Your task to perform on an android device: search for starred emails in the gmail app Image 0: 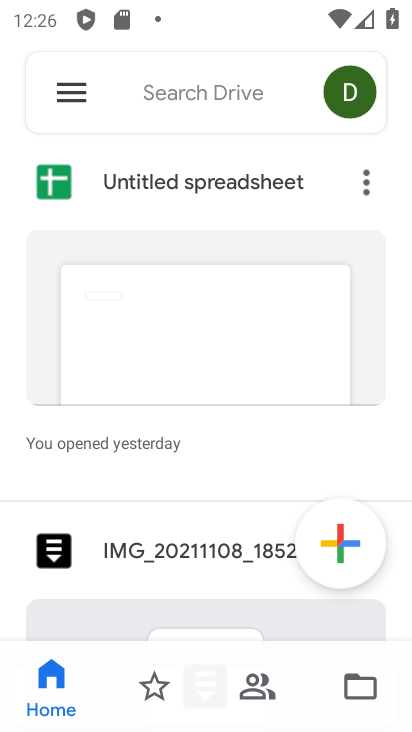
Step 0: press home button
Your task to perform on an android device: search for starred emails in the gmail app Image 1: 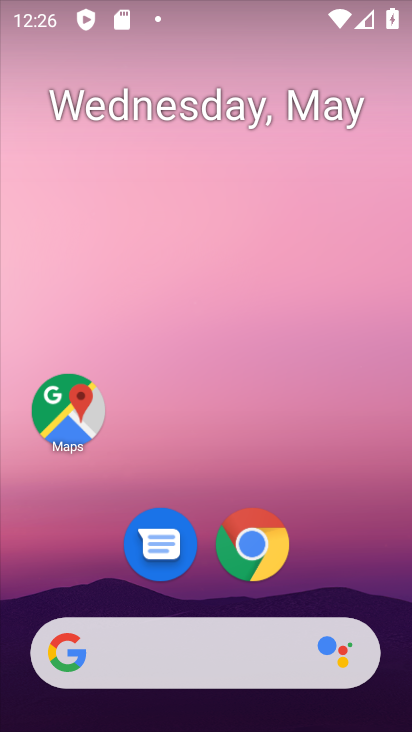
Step 1: drag from (334, 566) to (292, 196)
Your task to perform on an android device: search for starred emails in the gmail app Image 2: 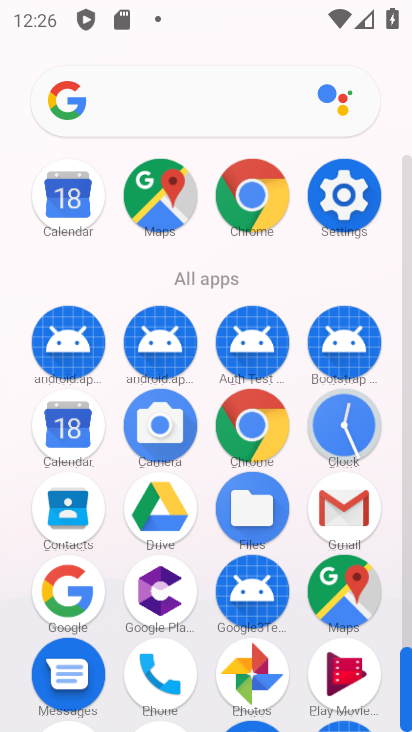
Step 2: click (331, 506)
Your task to perform on an android device: search for starred emails in the gmail app Image 3: 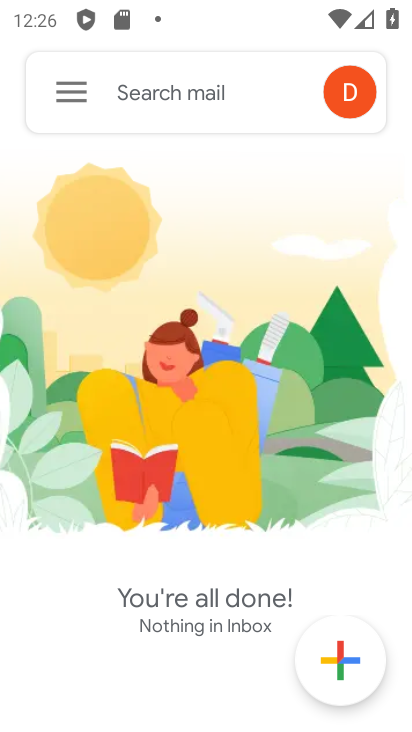
Step 3: click (62, 90)
Your task to perform on an android device: search for starred emails in the gmail app Image 4: 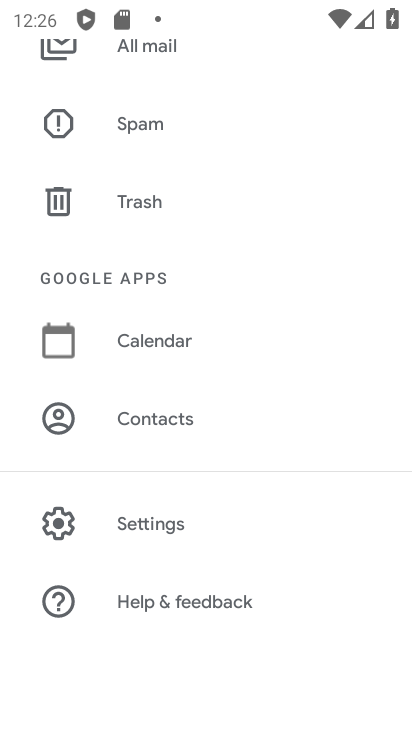
Step 4: click (270, 599)
Your task to perform on an android device: search for starred emails in the gmail app Image 5: 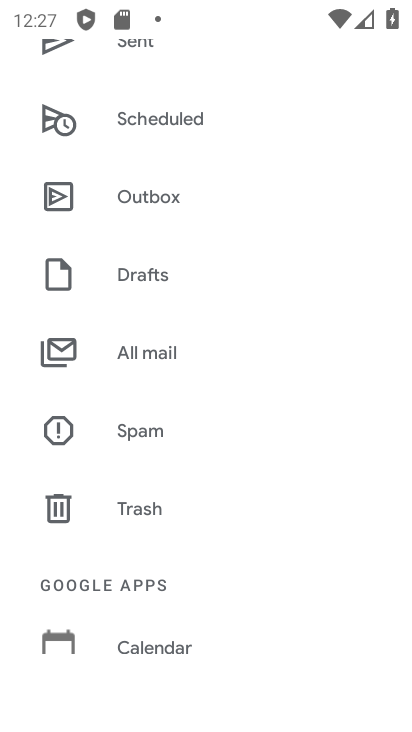
Step 5: drag from (165, 204) to (158, 511)
Your task to perform on an android device: search for starred emails in the gmail app Image 6: 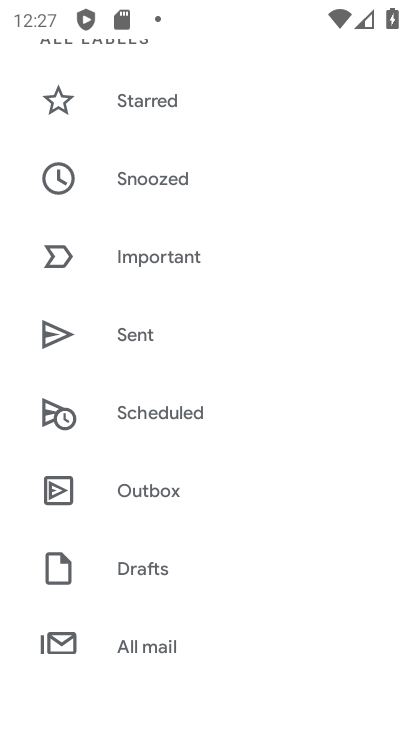
Step 6: click (146, 113)
Your task to perform on an android device: search for starred emails in the gmail app Image 7: 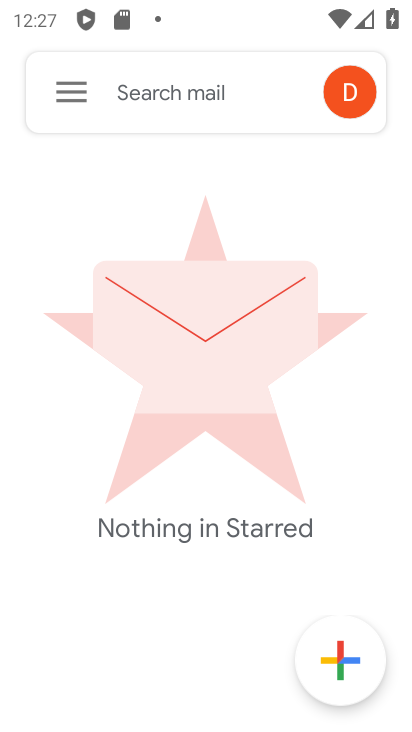
Step 7: task complete